Your task to perform on an android device: Go to Wikipedia Image 0: 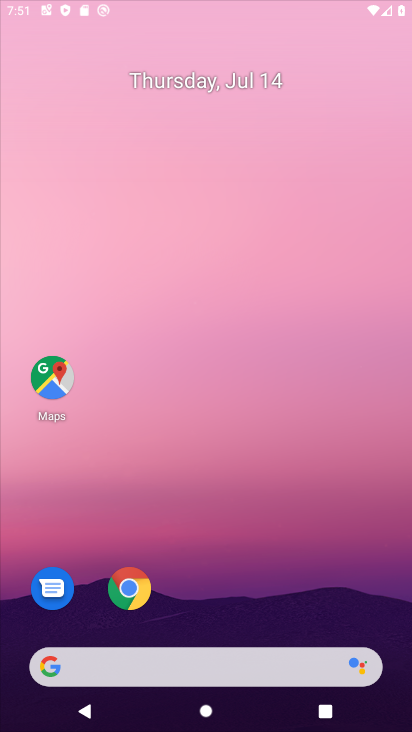
Step 0: drag from (341, 500) to (215, 25)
Your task to perform on an android device: Go to Wikipedia Image 1: 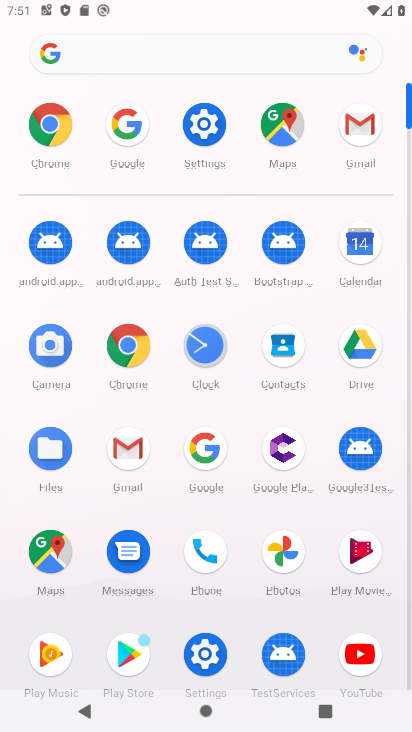
Step 1: click (188, 439)
Your task to perform on an android device: Go to Wikipedia Image 2: 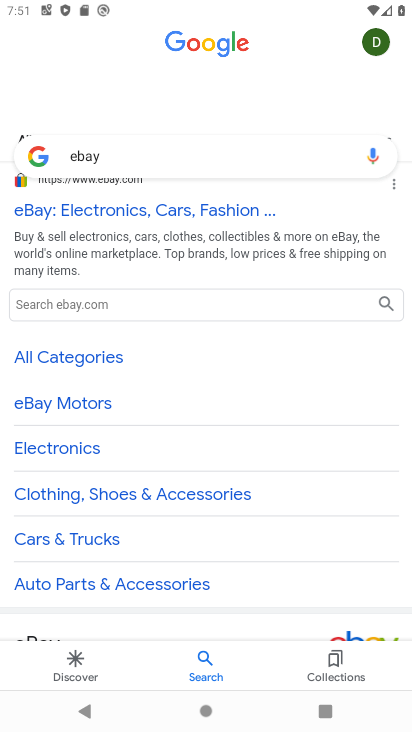
Step 2: press back button
Your task to perform on an android device: Go to Wikipedia Image 3: 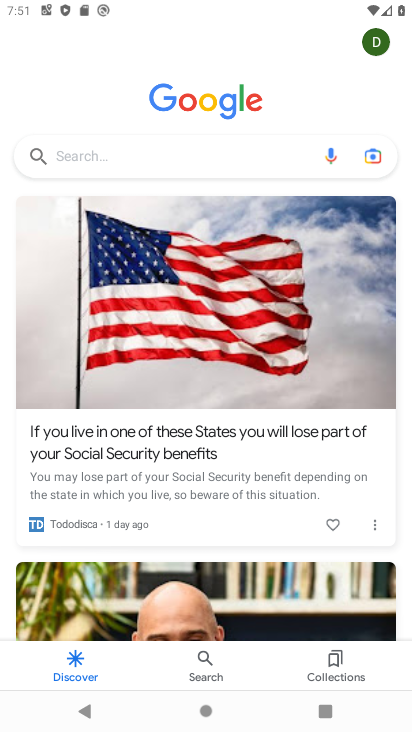
Step 3: click (86, 145)
Your task to perform on an android device: Go to Wikipedia Image 4: 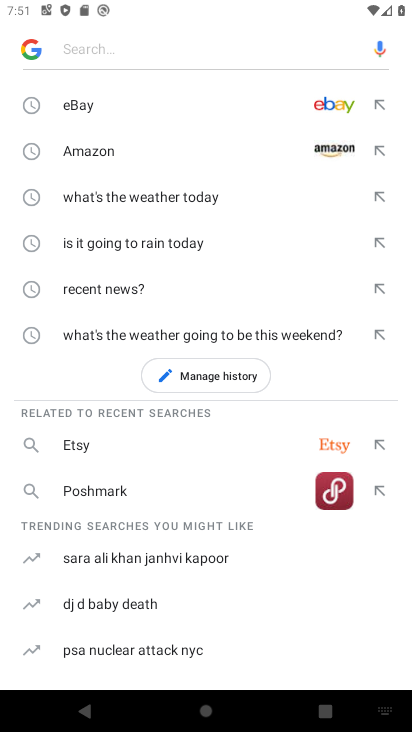
Step 4: type "Wikipedia"
Your task to perform on an android device: Go to Wikipedia Image 5: 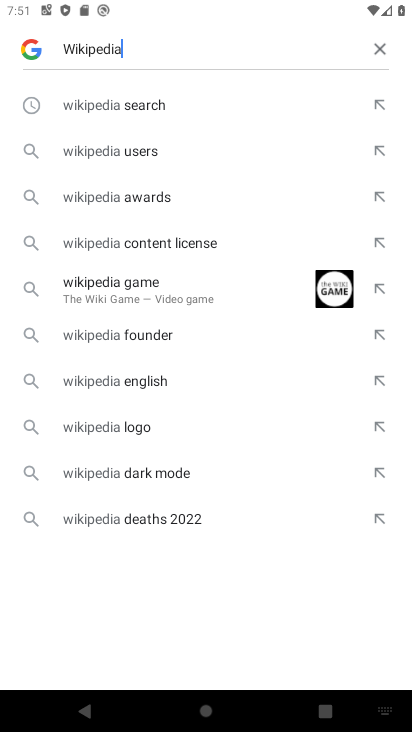
Step 5: click (84, 109)
Your task to perform on an android device: Go to Wikipedia Image 6: 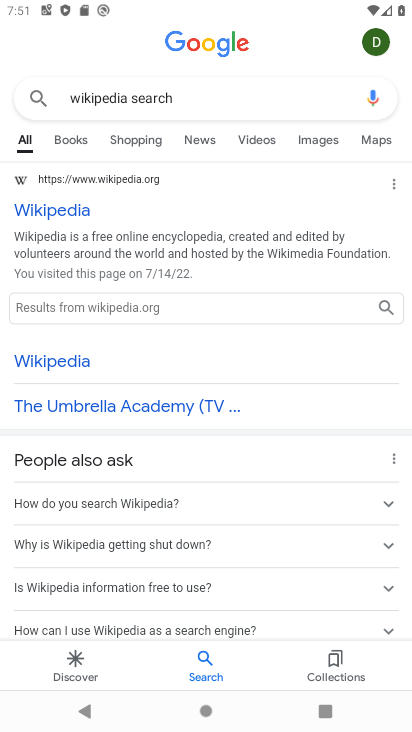
Step 6: task complete